Your task to perform on an android device: turn on priority inbox in the gmail app Image 0: 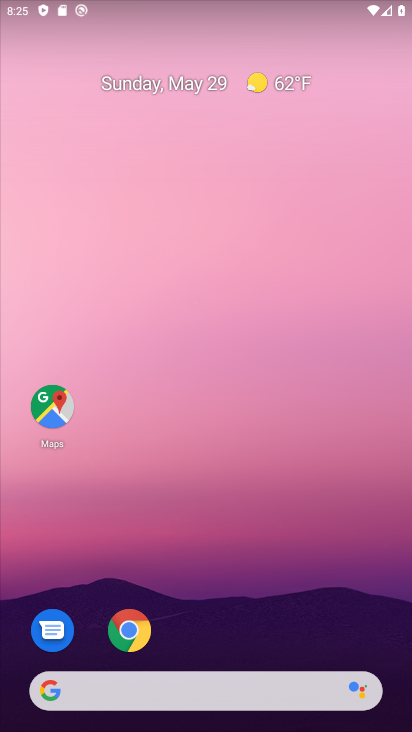
Step 0: drag from (390, 681) to (364, 163)
Your task to perform on an android device: turn on priority inbox in the gmail app Image 1: 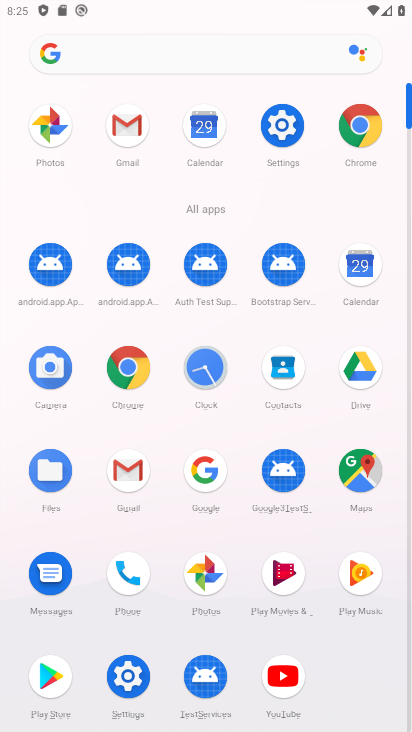
Step 1: click (127, 473)
Your task to perform on an android device: turn on priority inbox in the gmail app Image 2: 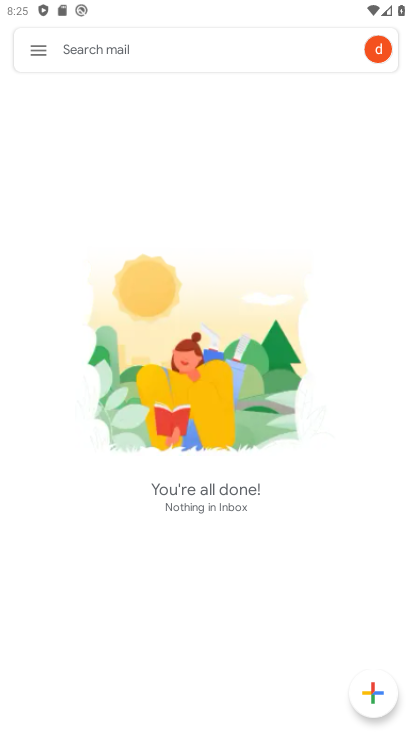
Step 2: click (20, 50)
Your task to perform on an android device: turn on priority inbox in the gmail app Image 3: 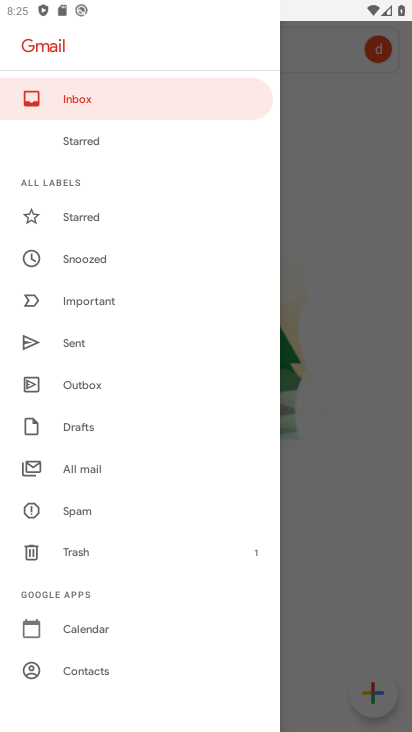
Step 3: drag from (154, 658) to (184, 380)
Your task to perform on an android device: turn on priority inbox in the gmail app Image 4: 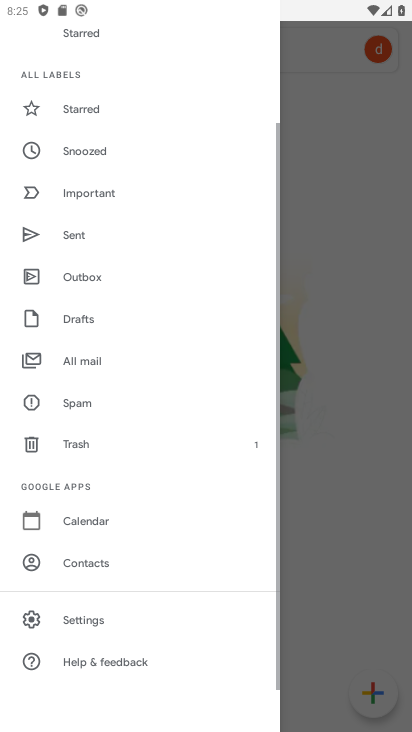
Step 4: click (85, 615)
Your task to perform on an android device: turn on priority inbox in the gmail app Image 5: 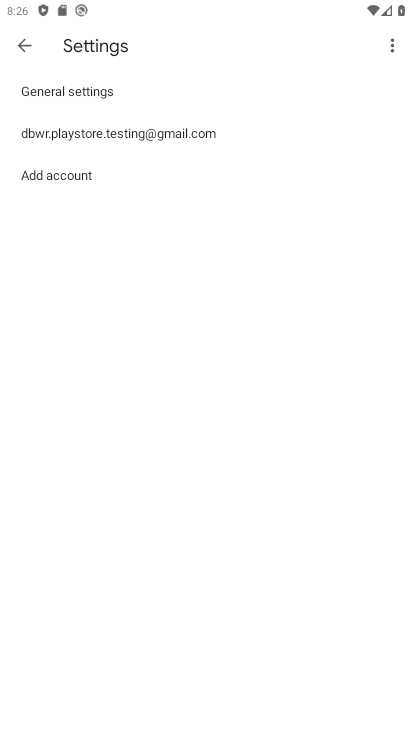
Step 5: click (70, 137)
Your task to perform on an android device: turn on priority inbox in the gmail app Image 6: 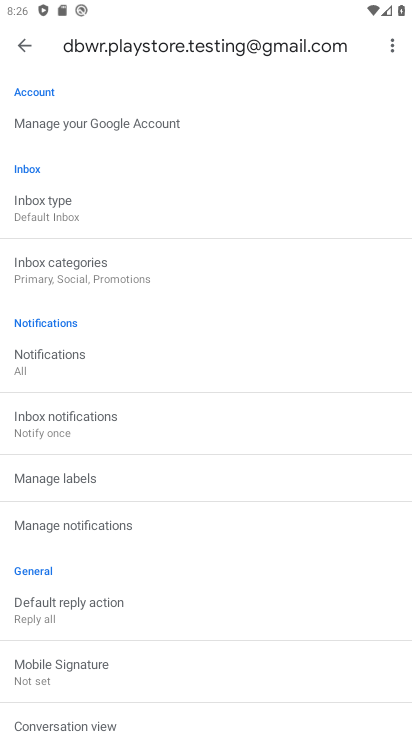
Step 6: click (41, 205)
Your task to perform on an android device: turn on priority inbox in the gmail app Image 7: 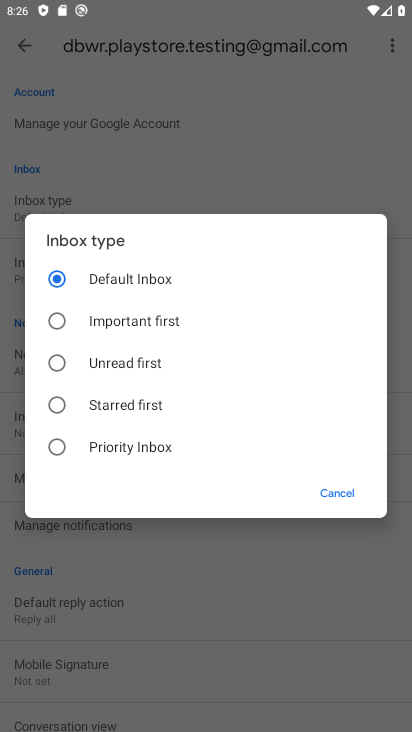
Step 7: click (57, 440)
Your task to perform on an android device: turn on priority inbox in the gmail app Image 8: 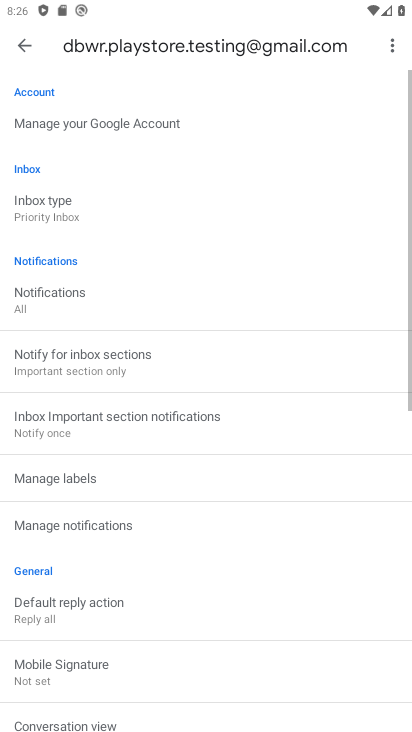
Step 8: task complete